Your task to perform on an android device: change your default location settings in chrome Image 0: 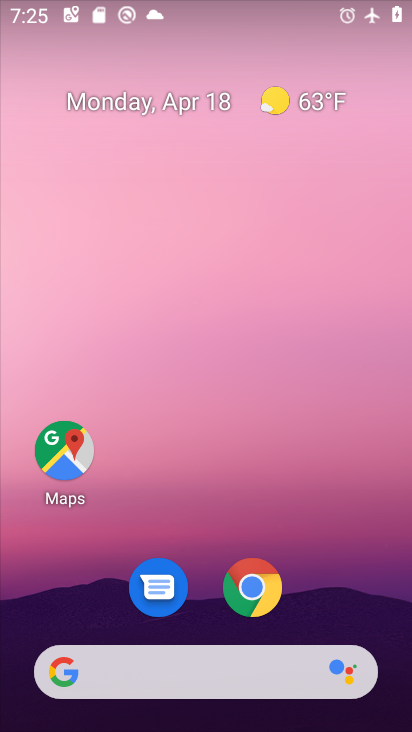
Step 0: click (266, 592)
Your task to perform on an android device: change your default location settings in chrome Image 1: 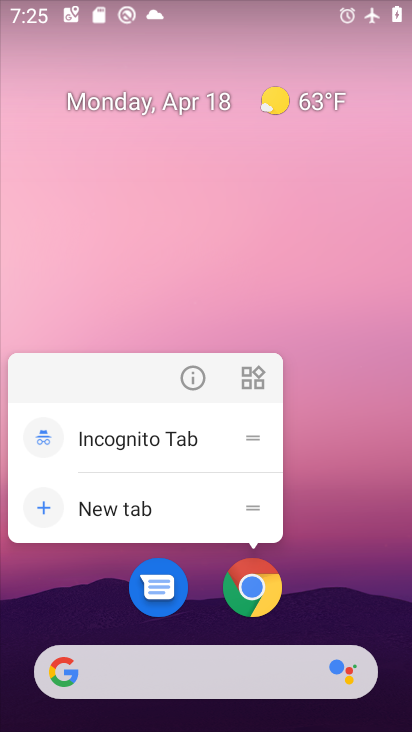
Step 1: click (266, 592)
Your task to perform on an android device: change your default location settings in chrome Image 2: 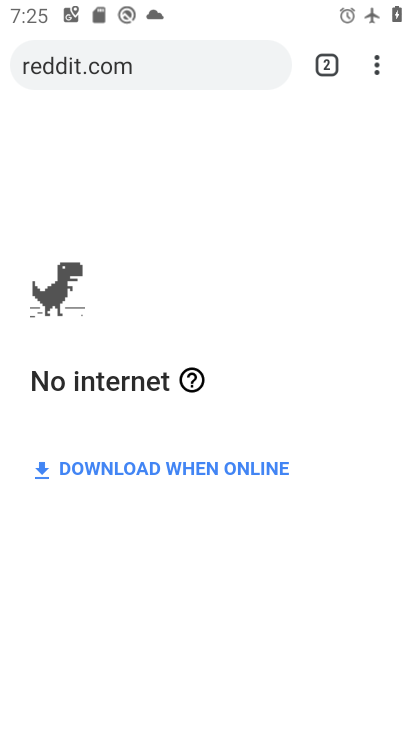
Step 2: click (378, 61)
Your task to perform on an android device: change your default location settings in chrome Image 3: 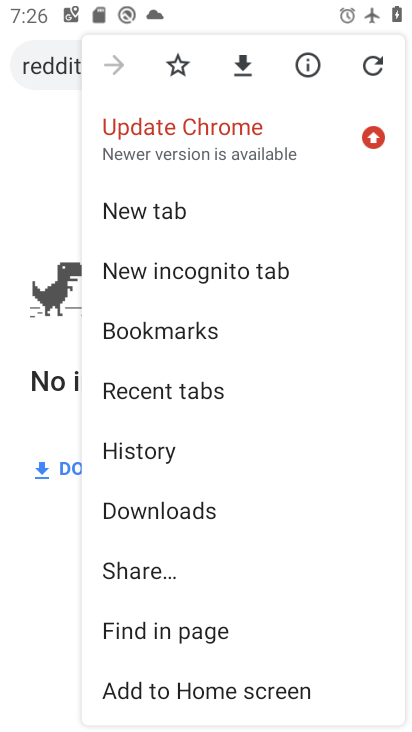
Step 3: drag from (264, 605) to (302, 269)
Your task to perform on an android device: change your default location settings in chrome Image 4: 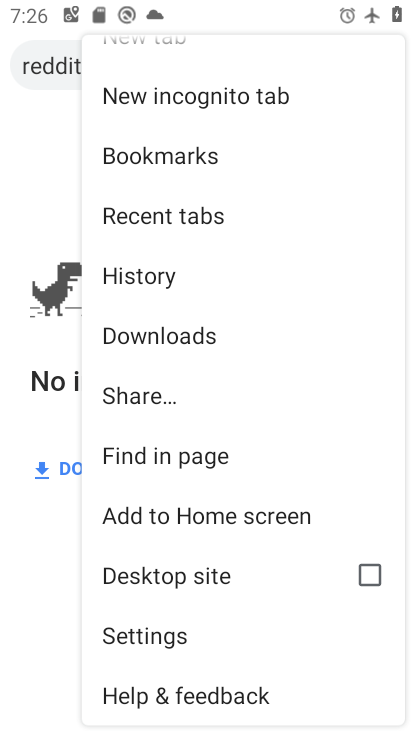
Step 4: click (230, 641)
Your task to perform on an android device: change your default location settings in chrome Image 5: 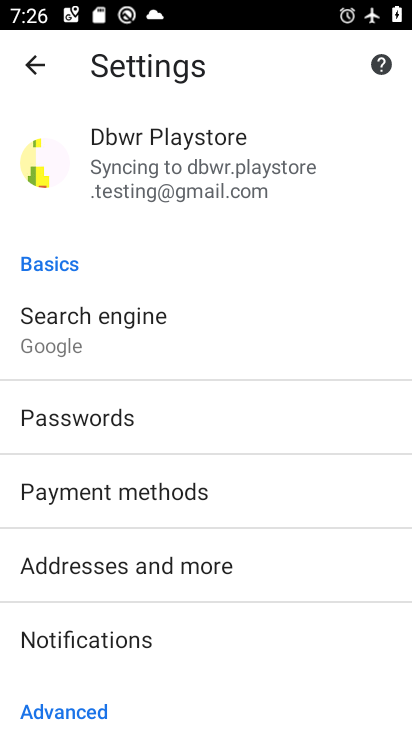
Step 5: drag from (230, 641) to (211, 259)
Your task to perform on an android device: change your default location settings in chrome Image 6: 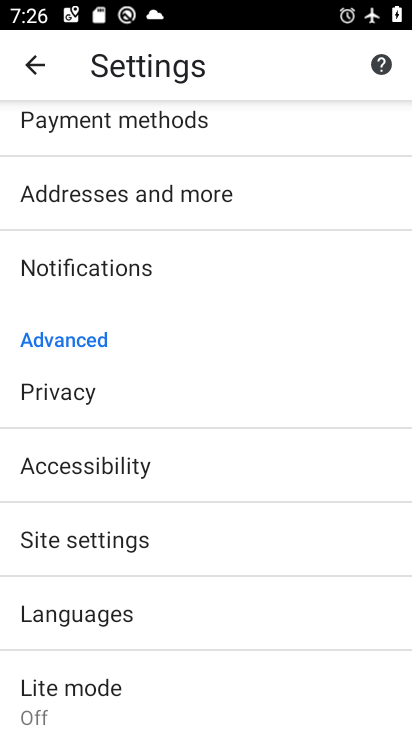
Step 6: click (244, 197)
Your task to perform on an android device: change your default location settings in chrome Image 7: 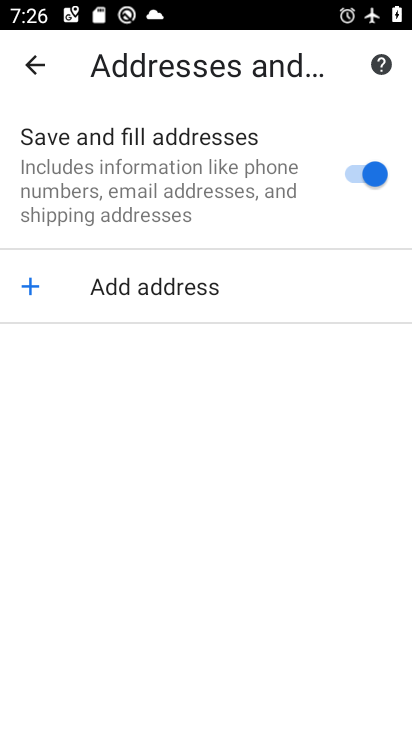
Step 7: task complete